Your task to perform on an android device: turn off smart reply in the gmail app Image 0: 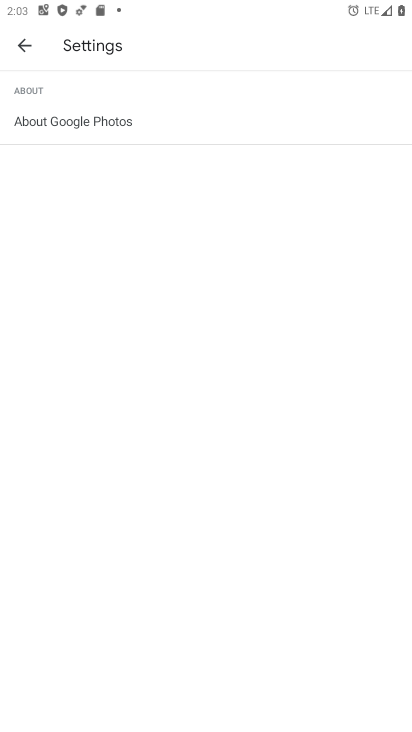
Step 0: press back button
Your task to perform on an android device: turn off smart reply in the gmail app Image 1: 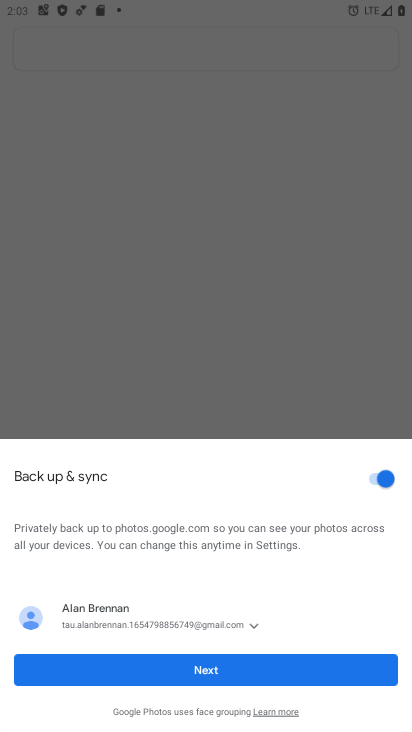
Step 1: press home button
Your task to perform on an android device: turn off smart reply in the gmail app Image 2: 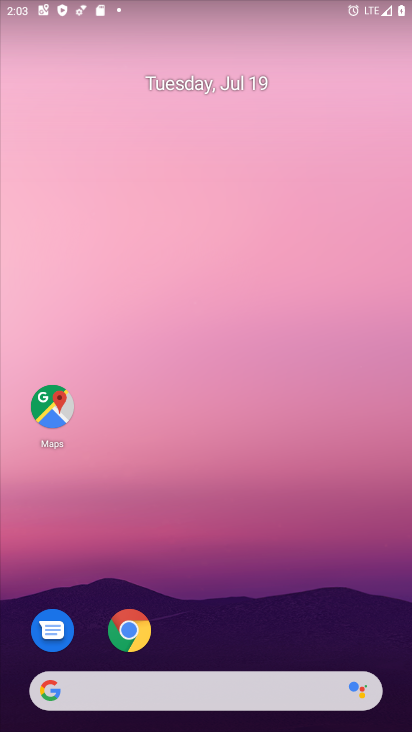
Step 2: drag from (207, 633) to (255, 119)
Your task to perform on an android device: turn off smart reply in the gmail app Image 3: 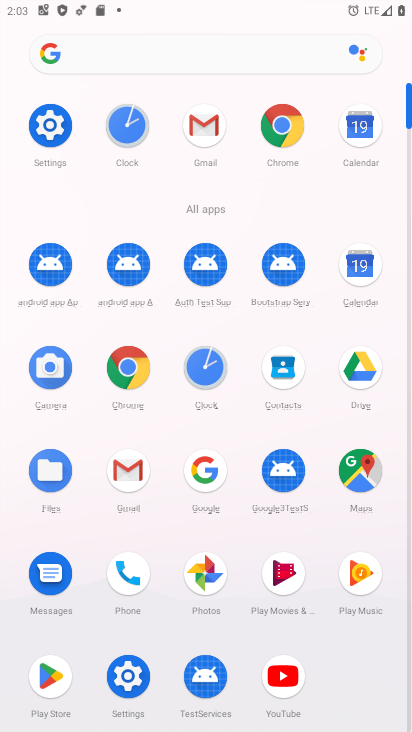
Step 3: click (205, 122)
Your task to perform on an android device: turn off smart reply in the gmail app Image 4: 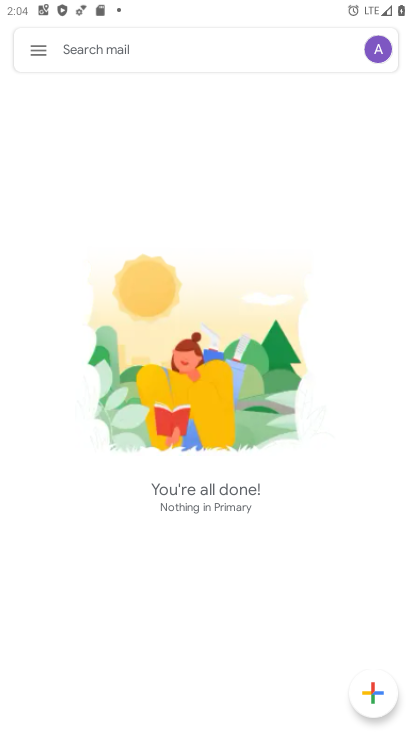
Step 4: click (37, 45)
Your task to perform on an android device: turn off smart reply in the gmail app Image 5: 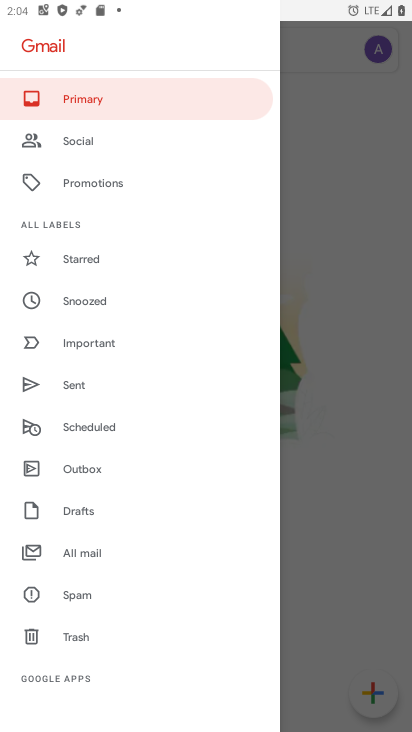
Step 5: drag from (110, 634) to (172, 148)
Your task to perform on an android device: turn off smart reply in the gmail app Image 6: 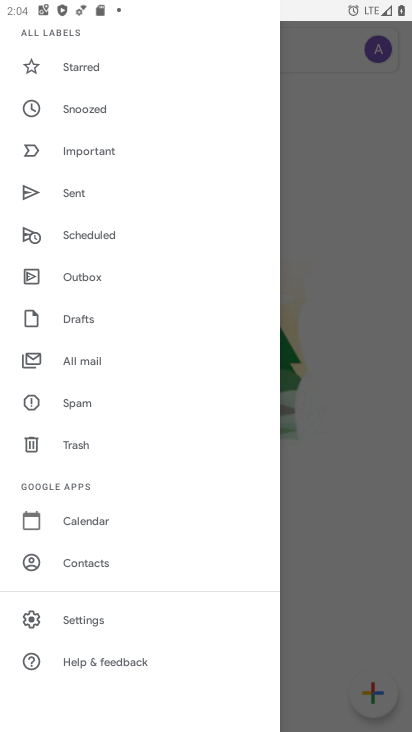
Step 6: click (111, 614)
Your task to perform on an android device: turn off smart reply in the gmail app Image 7: 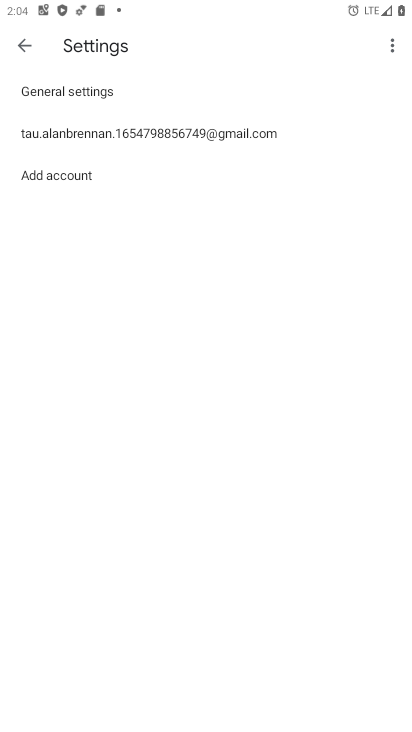
Step 7: click (126, 130)
Your task to perform on an android device: turn off smart reply in the gmail app Image 8: 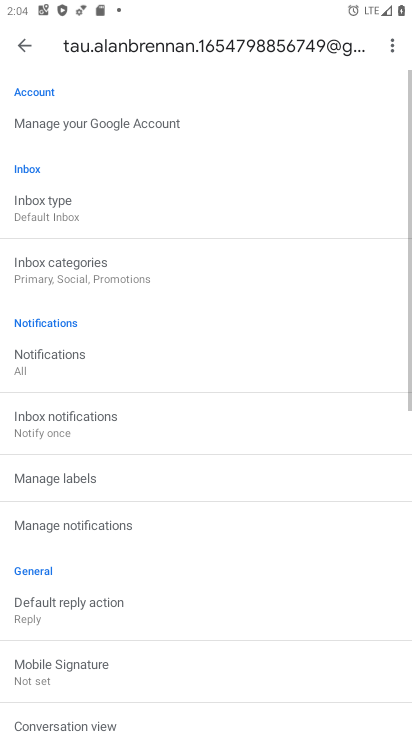
Step 8: drag from (171, 649) to (247, 209)
Your task to perform on an android device: turn off smart reply in the gmail app Image 9: 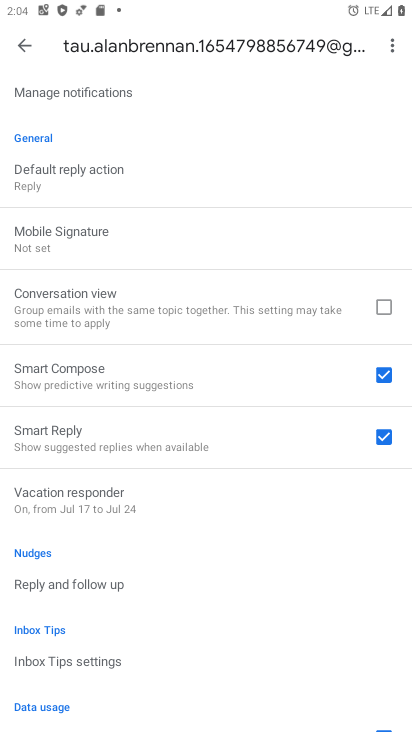
Step 9: click (381, 434)
Your task to perform on an android device: turn off smart reply in the gmail app Image 10: 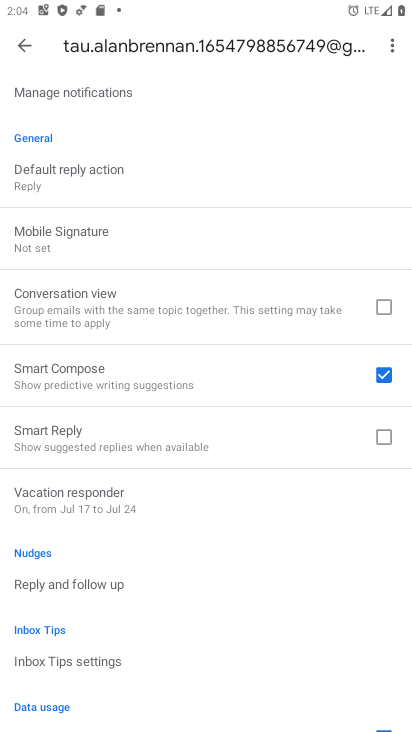
Step 10: task complete